Your task to perform on an android device: open a bookmark in the chrome app Image 0: 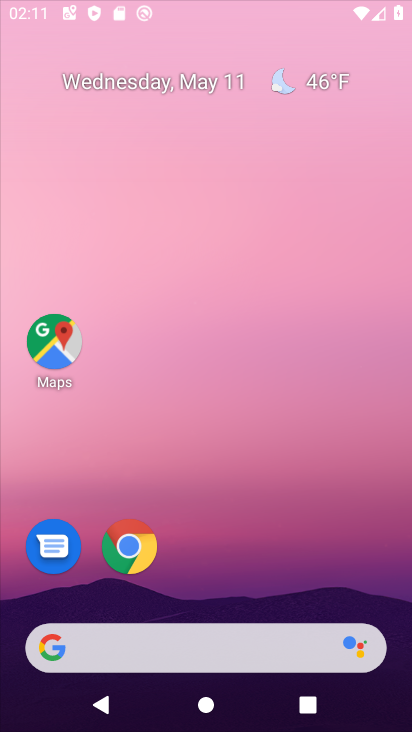
Step 0: click (316, 88)
Your task to perform on an android device: open a bookmark in the chrome app Image 1: 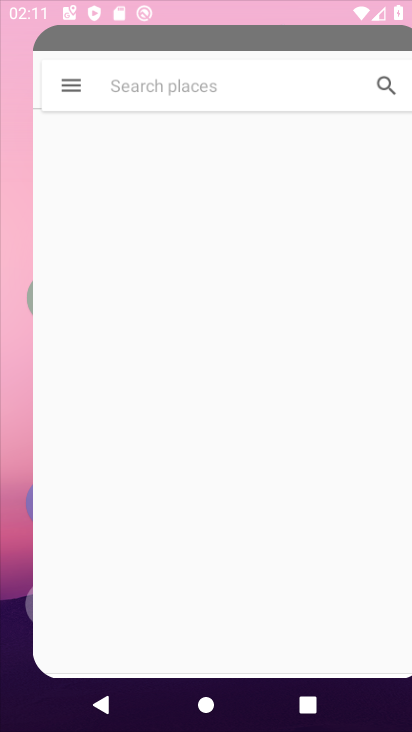
Step 1: drag from (192, 611) to (232, 106)
Your task to perform on an android device: open a bookmark in the chrome app Image 2: 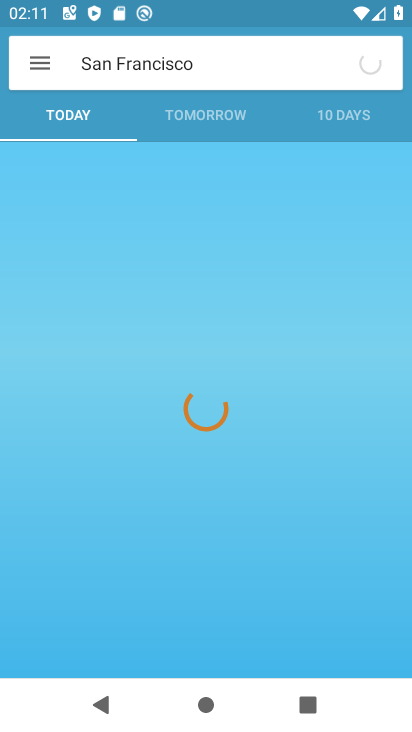
Step 2: press home button
Your task to perform on an android device: open a bookmark in the chrome app Image 3: 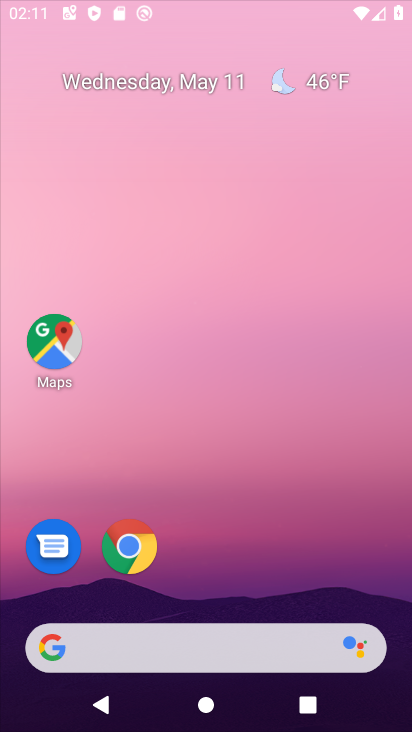
Step 3: drag from (243, 646) to (304, 96)
Your task to perform on an android device: open a bookmark in the chrome app Image 4: 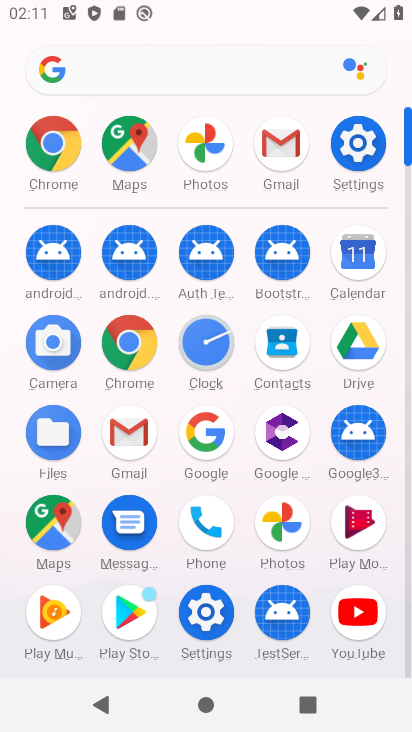
Step 4: click (126, 332)
Your task to perform on an android device: open a bookmark in the chrome app Image 5: 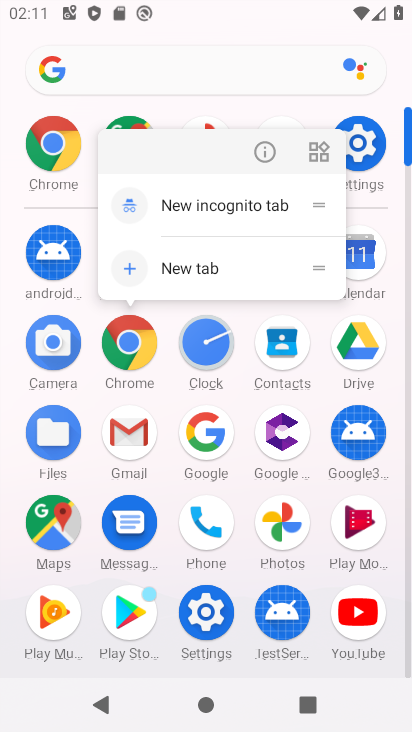
Step 5: click (263, 148)
Your task to perform on an android device: open a bookmark in the chrome app Image 6: 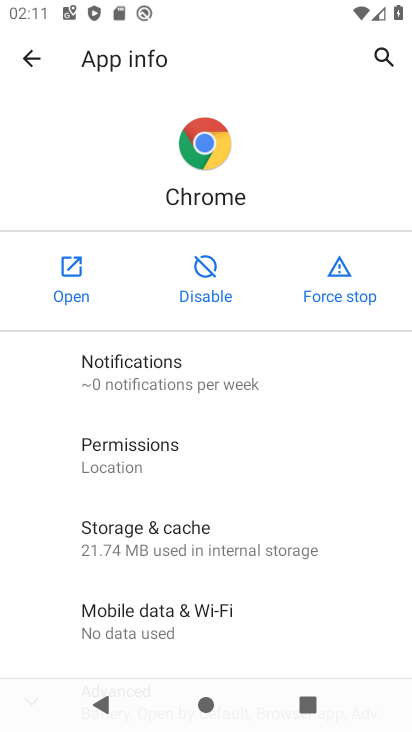
Step 6: click (68, 292)
Your task to perform on an android device: open a bookmark in the chrome app Image 7: 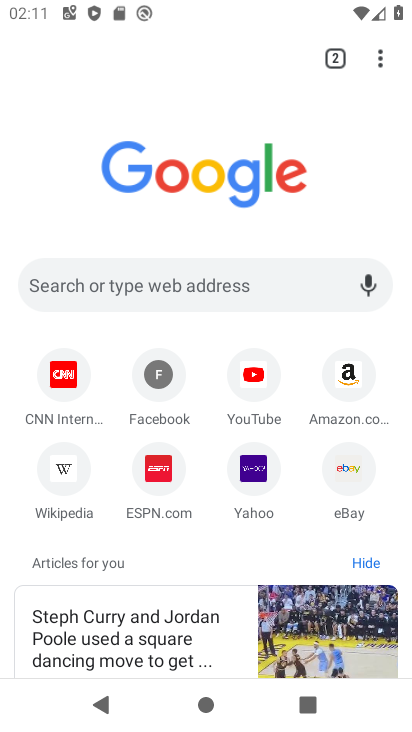
Step 7: task complete